Your task to perform on an android device: toggle translation in the chrome app Image 0: 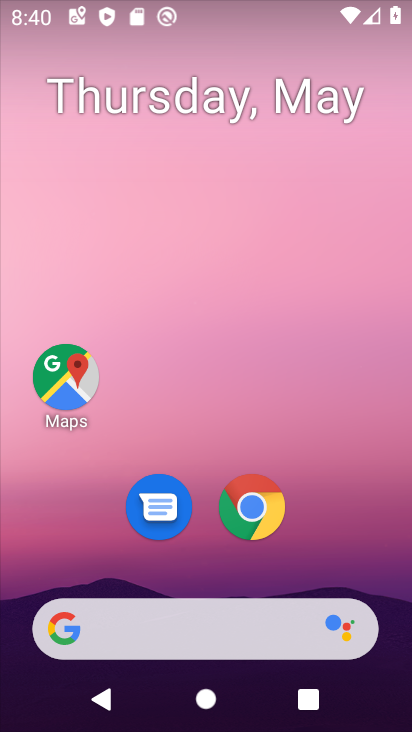
Step 0: drag from (251, 666) to (172, 198)
Your task to perform on an android device: toggle translation in the chrome app Image 1: 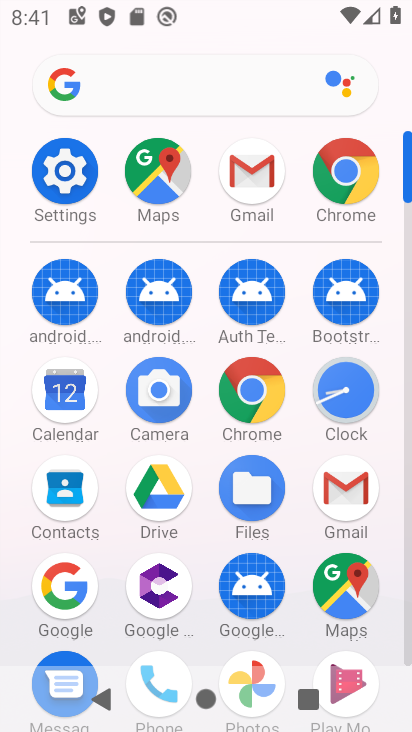
Step 1: click (240, 382)
Your task to perform on an android device: toggle translation in the chrome app Image 2: 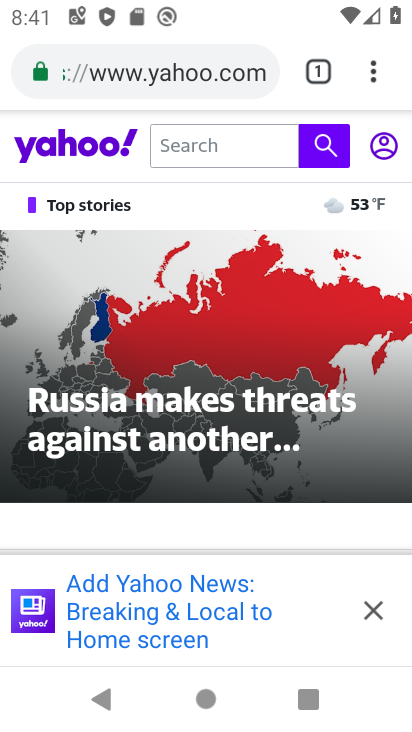
Step 2: click (372, 80)
Your task to perform on an android device: toggle translation in the chrome app Image 3: 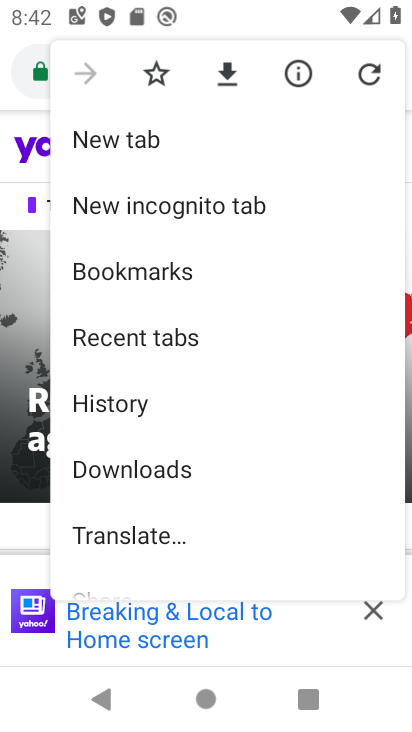
Step 3: drag from (154, 581) to (243, 254)
Your task to perform on an android device: toggle translation in the chrome app Image 4: 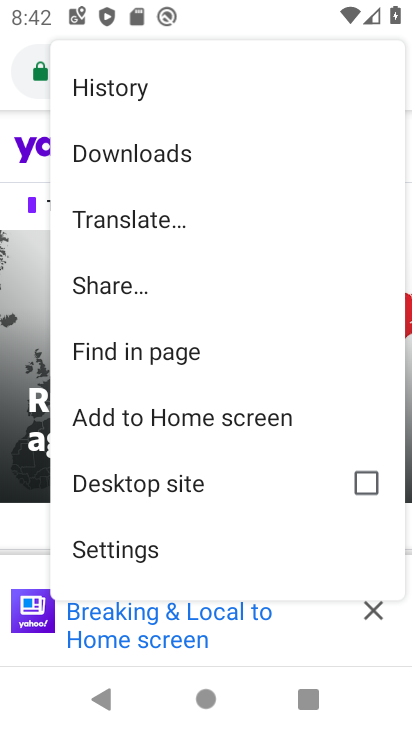
Step 4: click (154, 557)
Your task to perform on an android device: toggle translation in the chrome app Image 5: 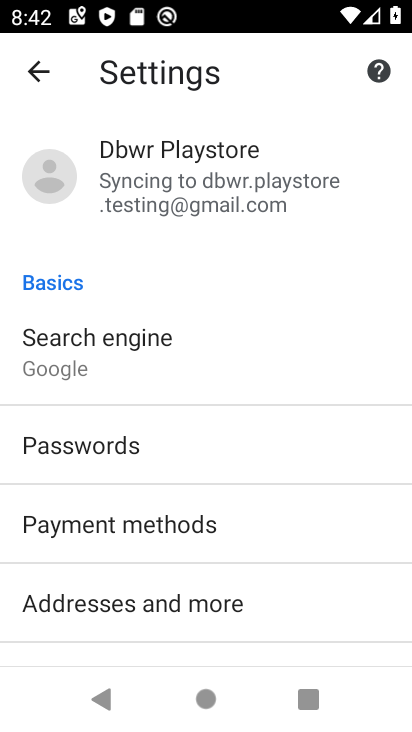
Step 5: drag from (124, 578) to (184, 311)
Your task to perform on an android device: toggle translation in the chrome app Image 6: 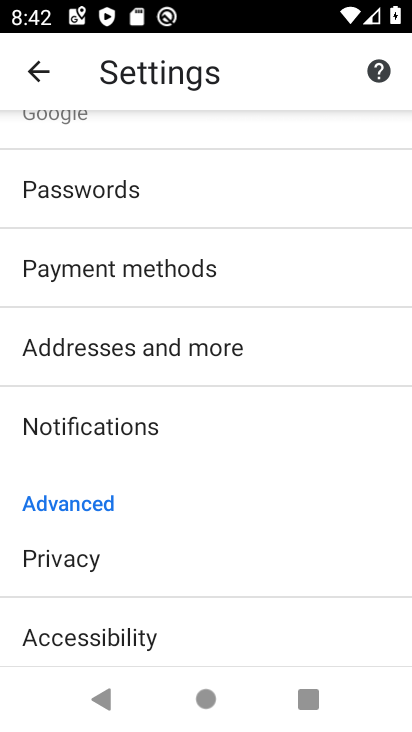
Step 6: drag from (139, 582) to (188, 283)
Your task to perform on an android device: toggle translation in the chrome app Image 7: 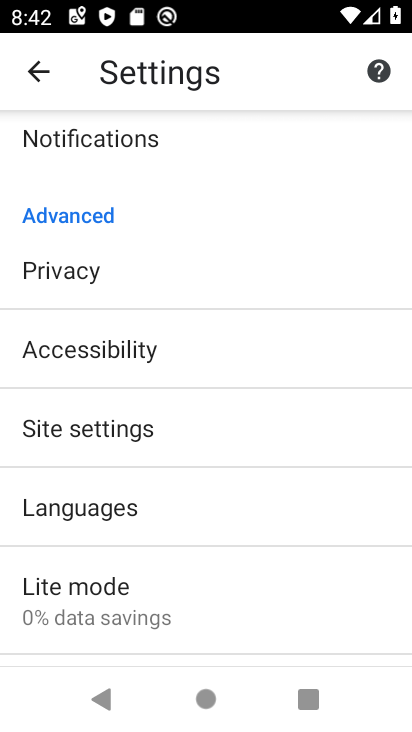
Step 7: click (91, 528)
Your task to perform on an android device: toggle translation in the chrome app Image 8: 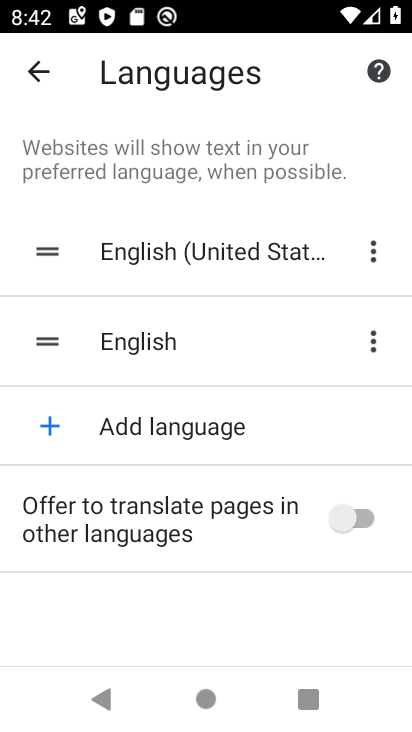
Step 8: click (235, 507)
Your task to perform on an android device: toggle translation in the chrome app Image 9: 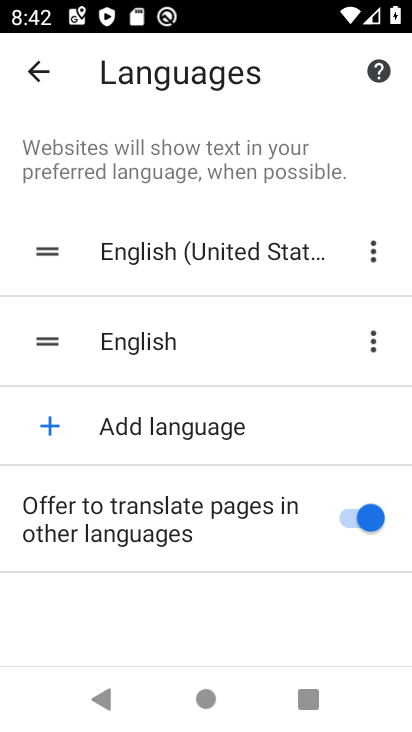
Step 9: task complete